Your task to perform on an android device: Check the weather Image 0: 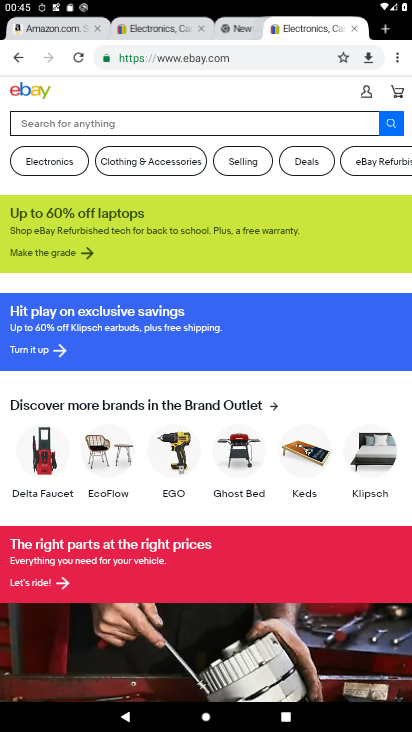
Step 0: press home button
Your task to perform on an android device: Check the weather Image 1: 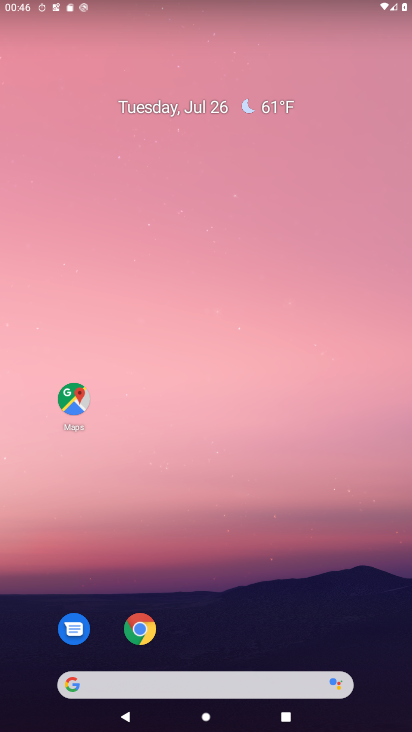
Step 1: drag from (224, 631) to (203, 267)
Your task to perform on an android device: Check the weather Image 2: 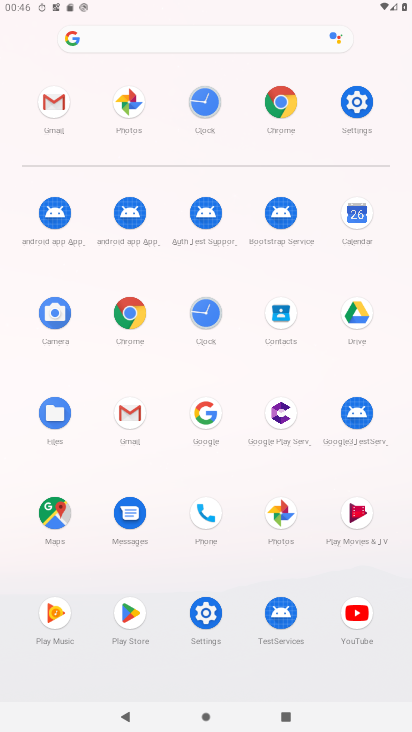
Step 2: click (209, 424)
Your task to perform on an android device: Check the weather Image 3: 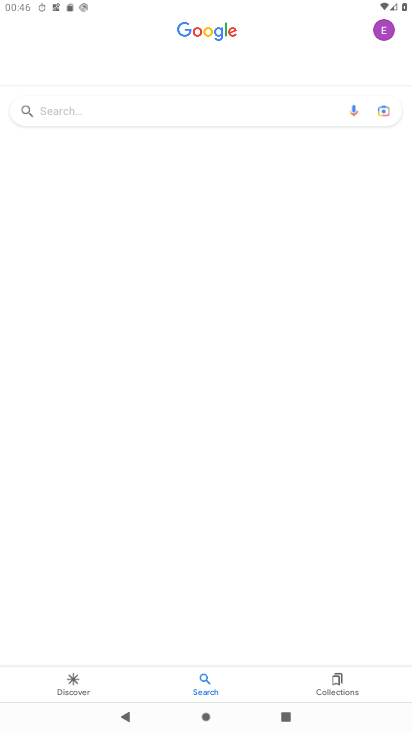
Step 3: click (142, 110)
Your task to perform on an android device: Check the weather Image 4: 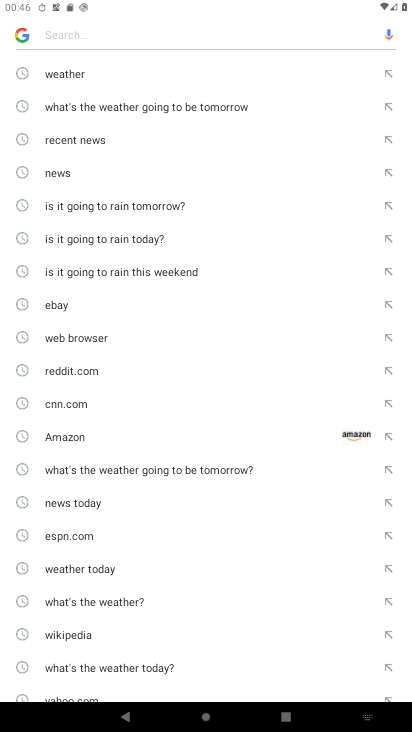
Step 4: click (67, 73)
Your task to perform on an android device: Check the weather Image 5: 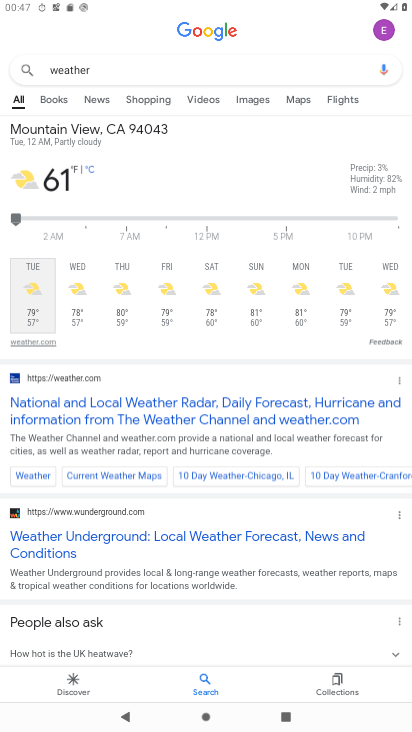
Step 5: task complete